Your task to perform on an android device: Open Google Image 0: 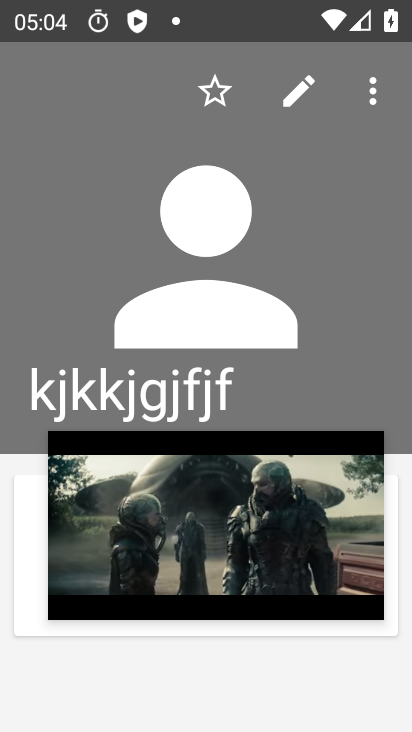
Step 0: click (334, 483)
Your task to perform on an android device: Open Google Image 1: 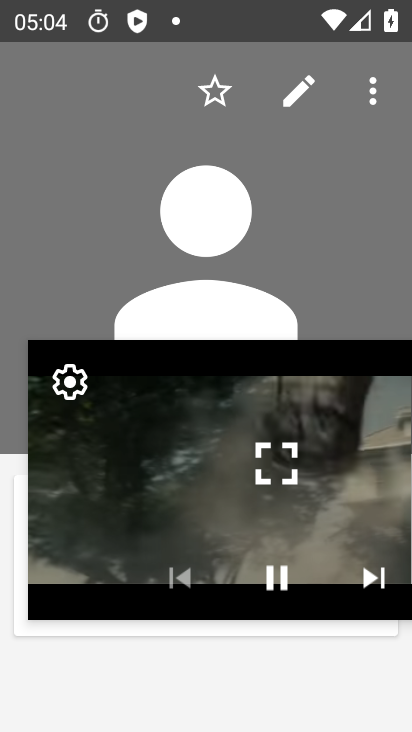
Step 1: click (391, 379)
Your task to perform on an android device: Open Google Image 2: 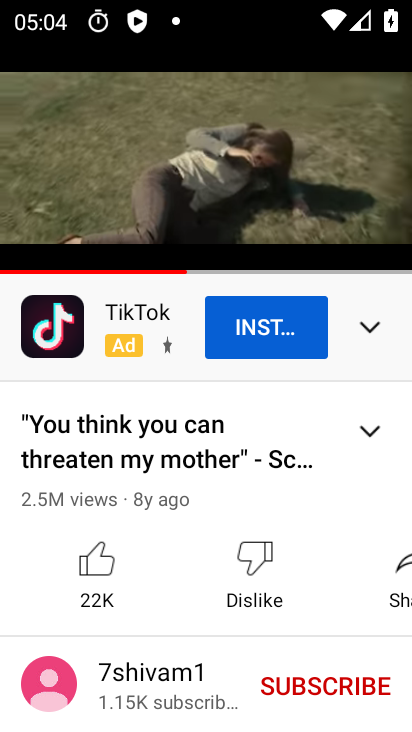
Step 2: drag from (346, 237) to (342, 731)
Your task to perform on an android device: Open Google Image 3: 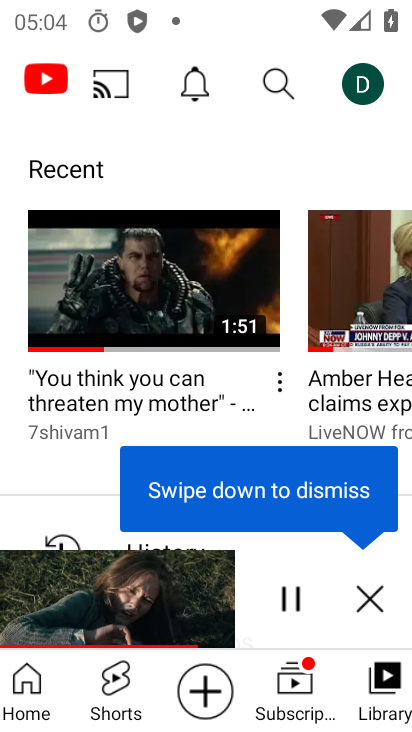
Step 3: click (374, 587)
Your task to perform on an android device: Open Google Image 4: 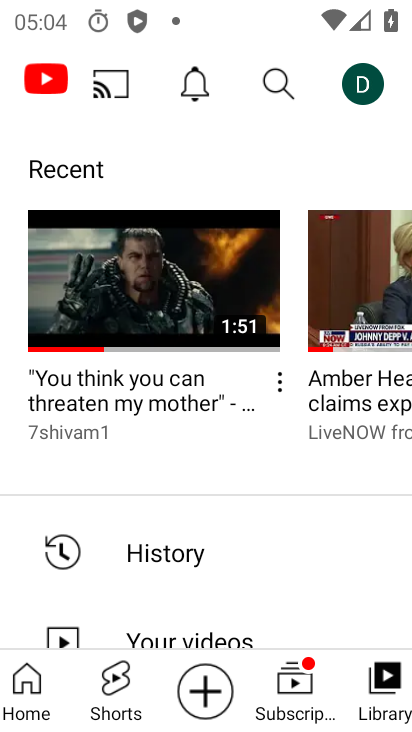
Step 4: press home button
Your task to perform on an android device: Open Google Image 5: 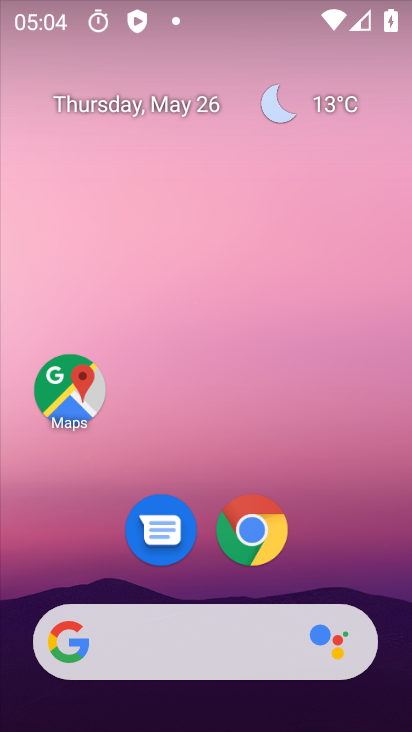
Step 5: drag from (292, 618) to (331, 30)
Your task to perform on an android device: Open Google Image 6: 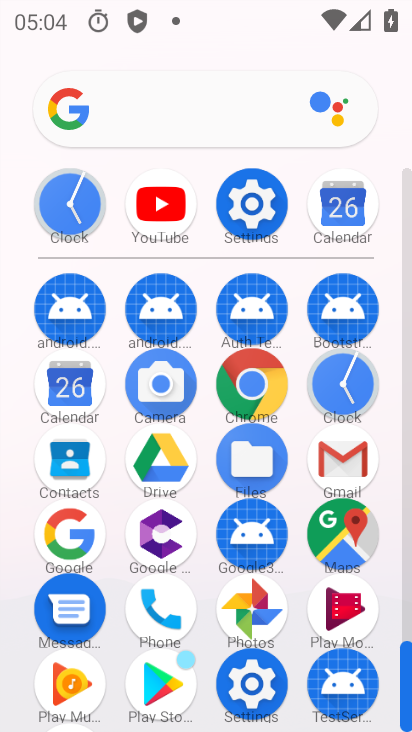
Step 6: click (242, 388)
Your task to perform on an android device: Open Google Image 7: 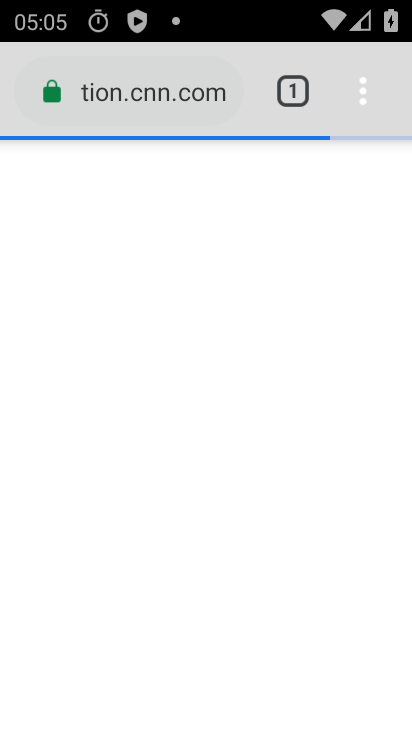
Step 7: task complete